Your task to perform on an android device: Open Reddit.com Image 0: 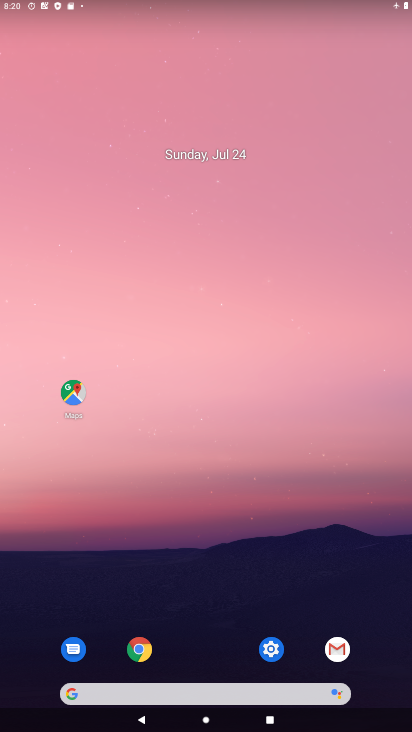
Step 0: click (144, 650)
Your task to perform on an android device: Open Reddit.com Image 1: 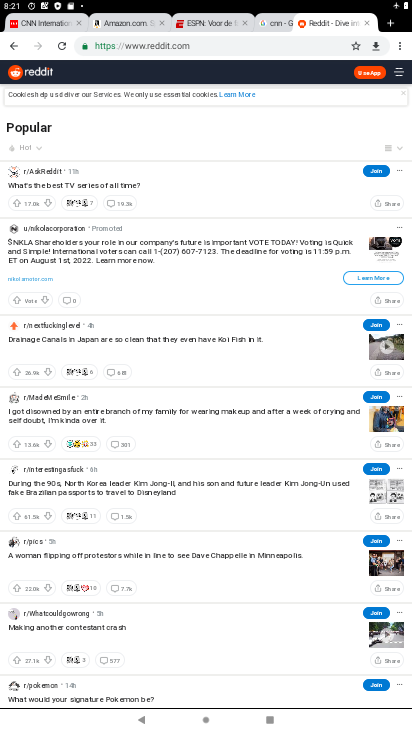
Step 1: task complete